Your task to perform on an android device: Show me recent news Image 0: 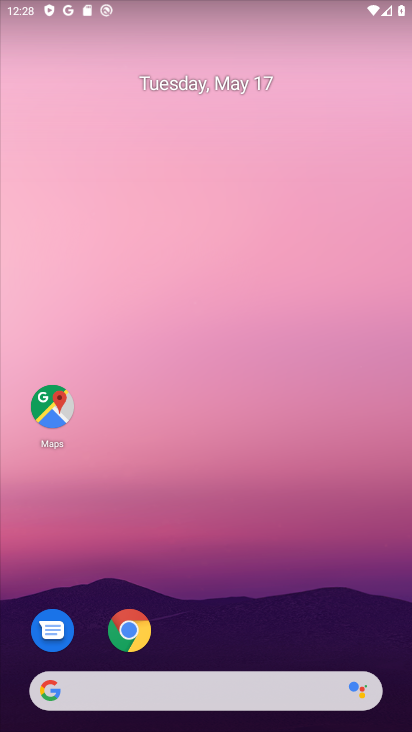
Step 0: click (248, 688)
Your task to perform on an android device: Show me recent news Image 1: 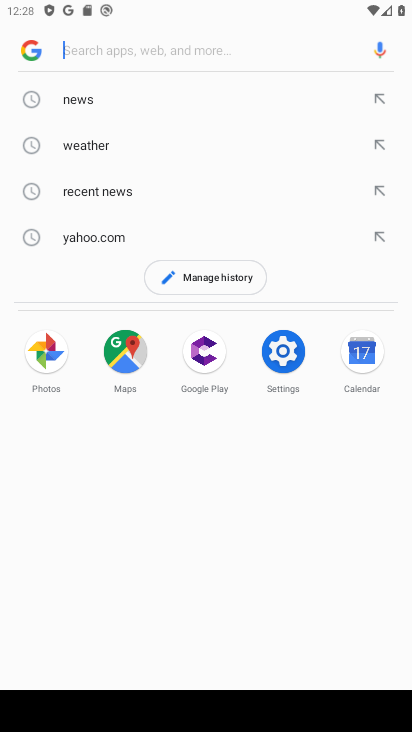
Step 1: click (221, 110)
Your task to perform on an android device: Show me recent news Image 2: 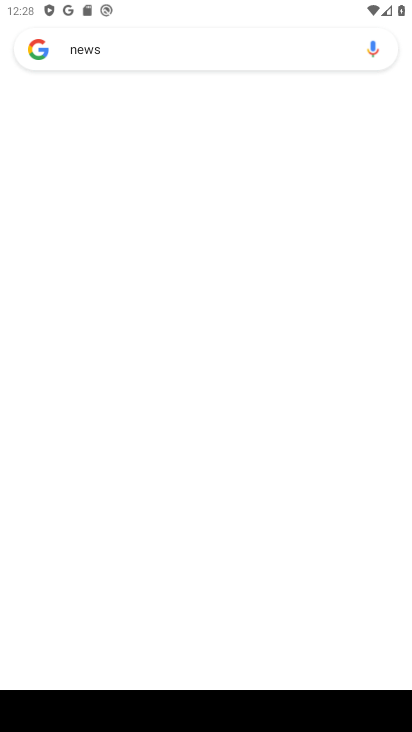
Step 2: task complete